Your task to perform on an android device: Open Wikipedia Image 0: 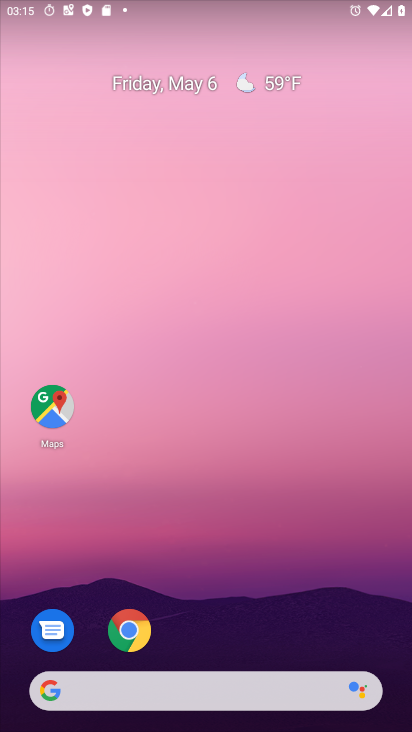
Step 0: drag from (218, 631) to (207, 245)
Your task to perform on an android device: Open Wikipedia Image 1: 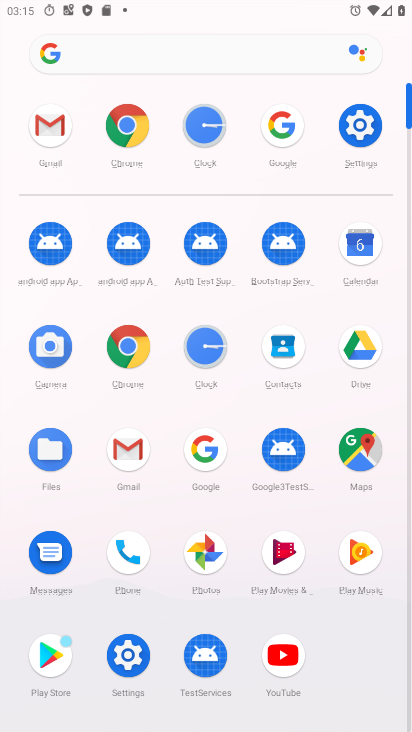
Step 1: click (194, 458)
Your task to perform on an android device: Open Wikipedia Image 2: 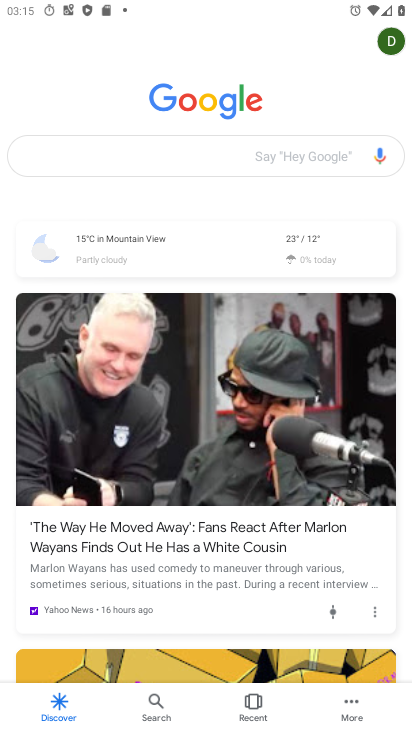
Step 2: click (244, 152)
Your task to perform on an android device: Open Wikipedia Image 3: 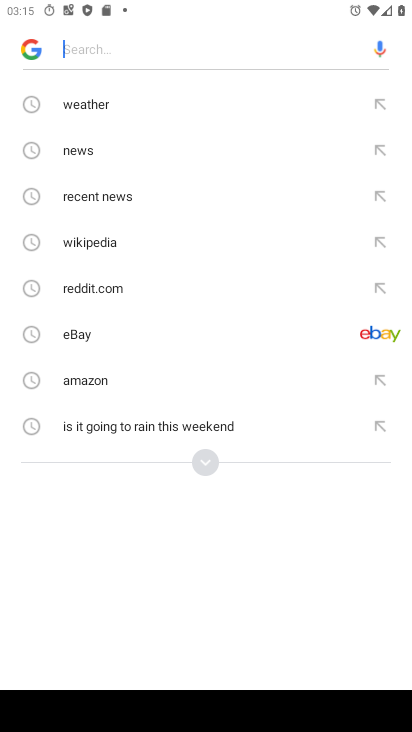
Step 3: click (125, 242)
Your task to perform on an android device: Open Wikipedia Image 4: 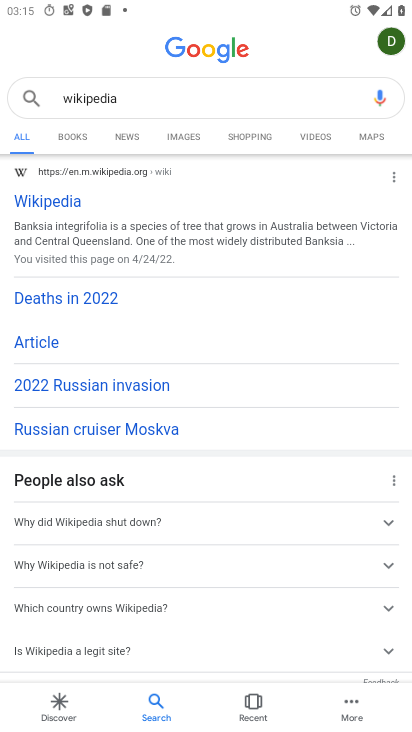
Step 4: click (51, 205)
Your task to perform on an android device: Open Wikipedia Image 5: 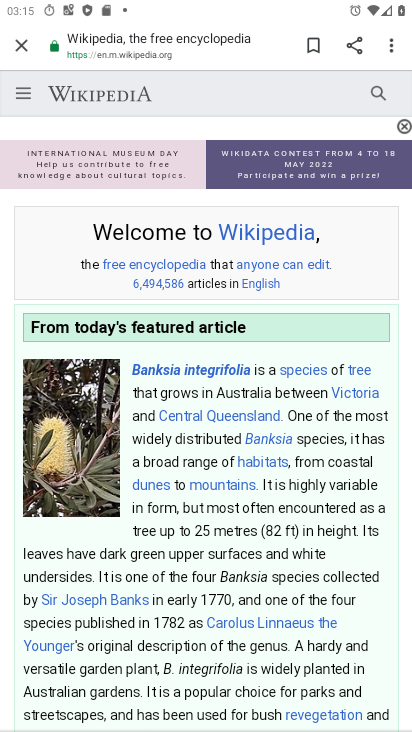
Step 5: task complete